Your task to perform on an android device: Open the calendar app, open the side menu, and click the "Day" option Image 0: 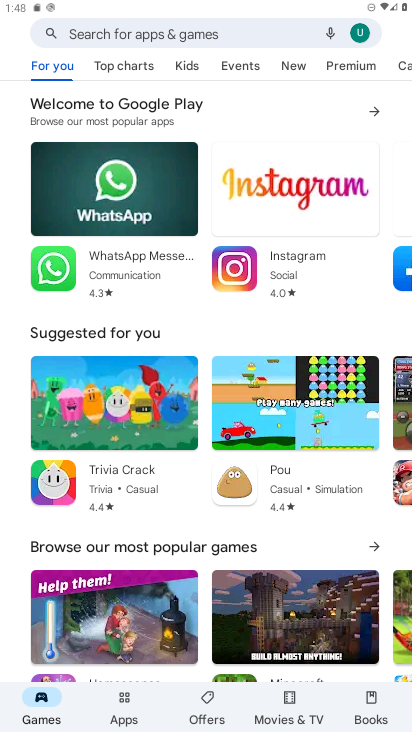
Step 0: task impossible